Your task to perform on an android device: What is the recent news? Image 0: 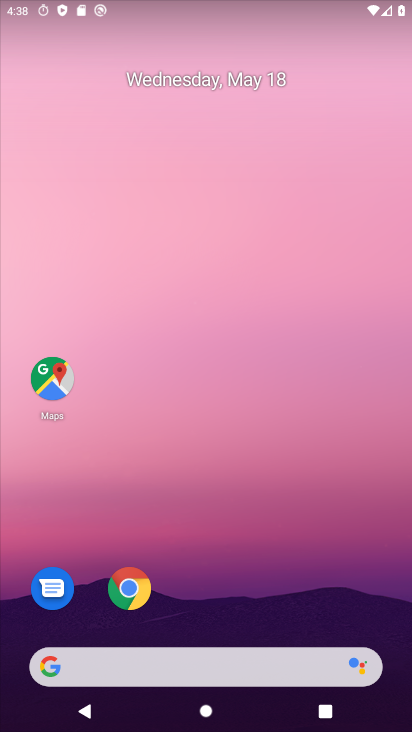
Step 0: click (139, 591)
Your task to perform on an android device: What is the recent news? Image 1: 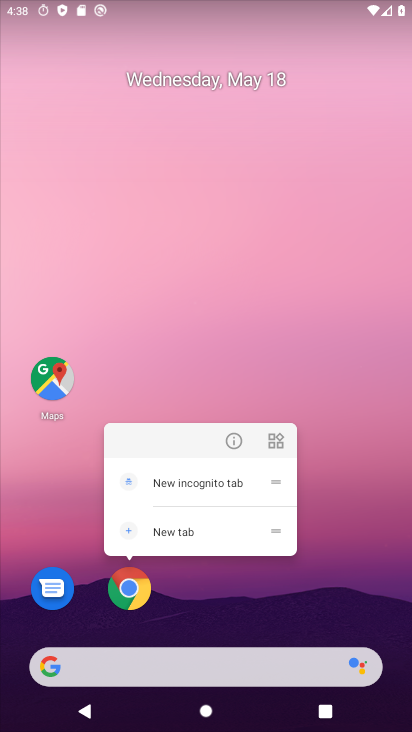
Step 1: click (136, 584)
Your task to perform on an android device: What is the recent news? Image 2: 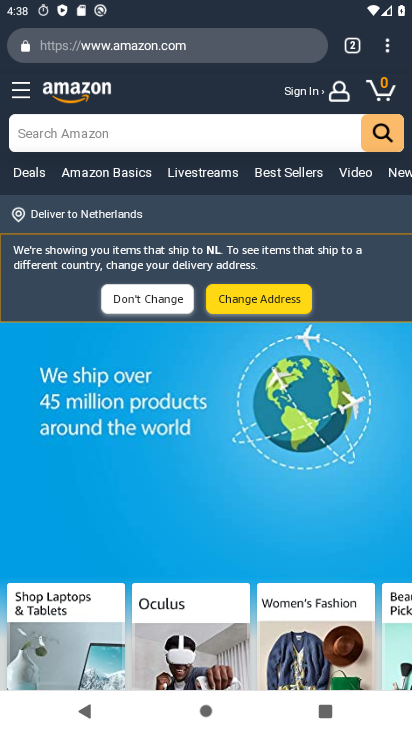
Step 2: drag from (380, 55) to (237, 88)
Your task to perform on an android device: What is the recent news? Image 3: 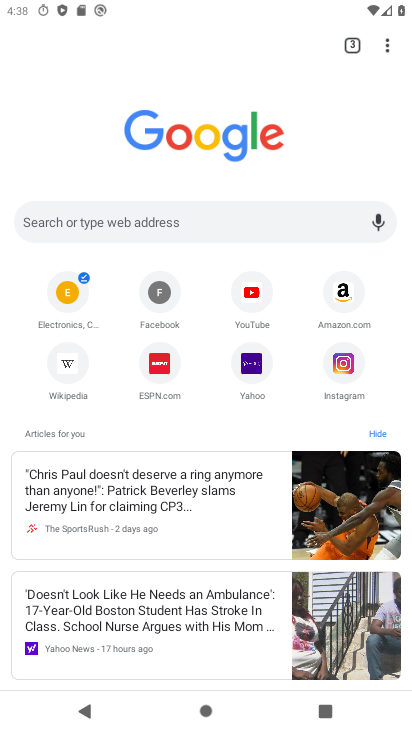
Step 3: click (284, 218)
Your task to perform on an android device: What is the recent news? Image 4: 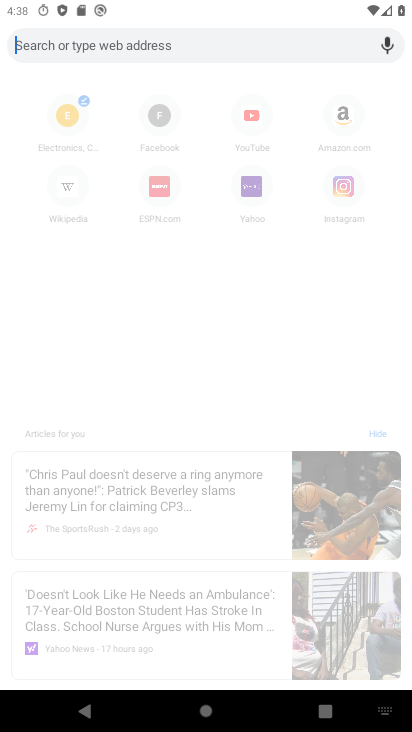
Step 4: type "What is the recent news?"
Your task to perform on an android device: What is the recent news? Image 5: 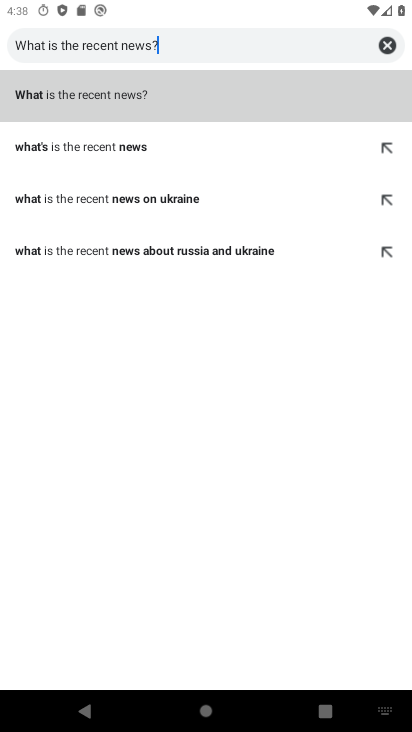
Step 5: click (87, 90)
Your task to perform on an android device: What is the recent news? Image 6: 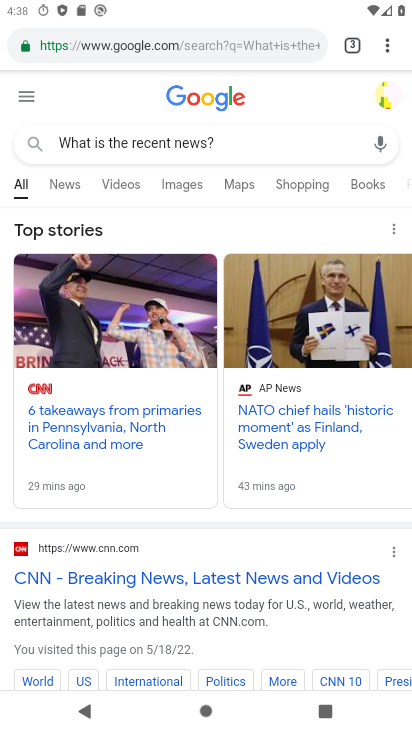
Step 6: click (65, 182)
Your task to perform on an android device: What is the recent news? Image 7: 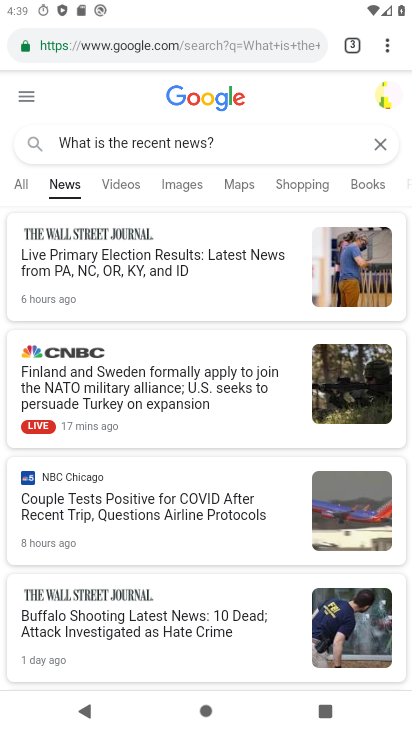
Step 7: task complete